Your task to perform on an android device: check out phone information Image 0: 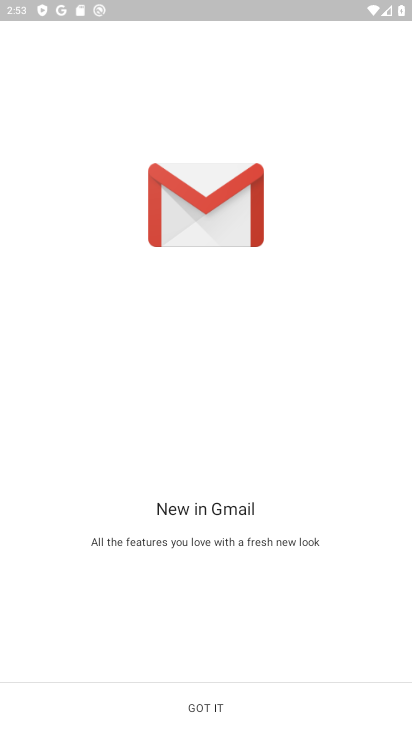
Step 0: press home button
Your task to perform on an android device: check out phone information Image 1: 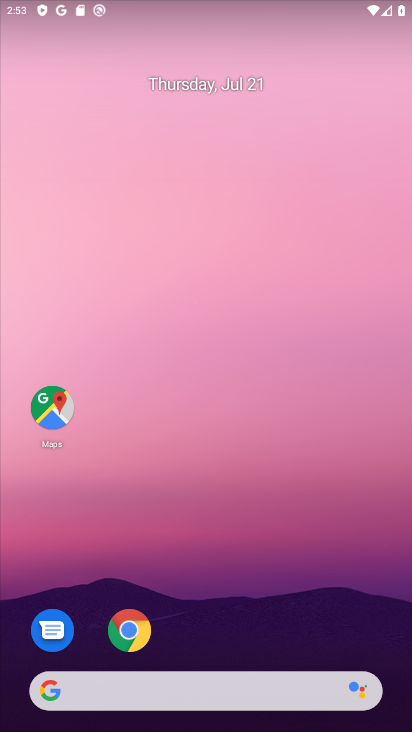
Step 1: drag from (289, 504) to (269, 25)
Your task to perform on an android device: check out phone information Image 2: 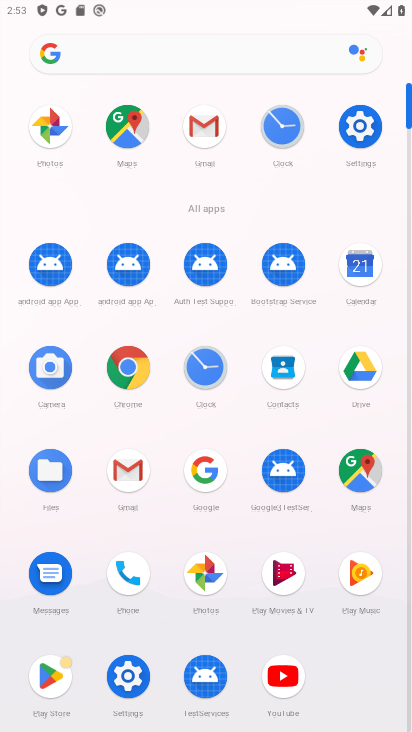
Step 2: click (361, 126)
Your task to perform on an android device: check out phone information Image 3: 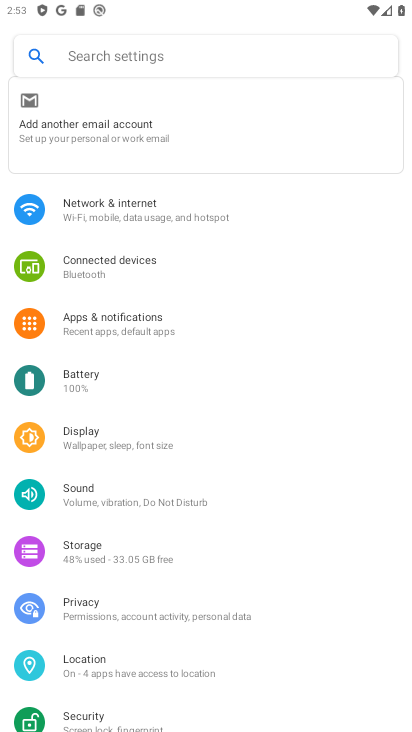
Step 3: drag from (209, 619) to (279, 98)
Your task to perform on an android device: check out phone information Image 4: 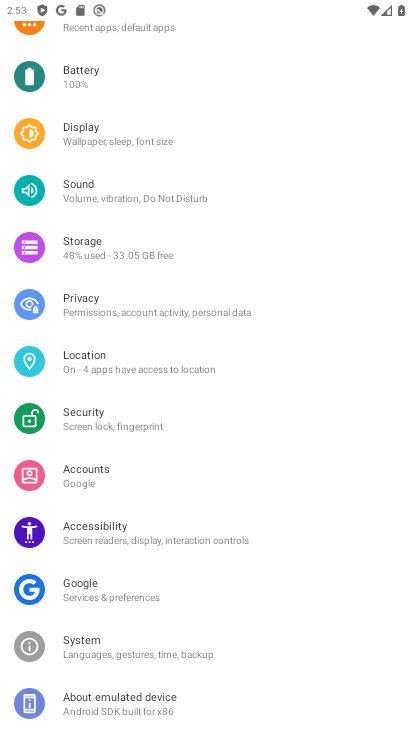
Step 4: click (144, 698)
Your task to perform on an android device: check out phone information Image 5: 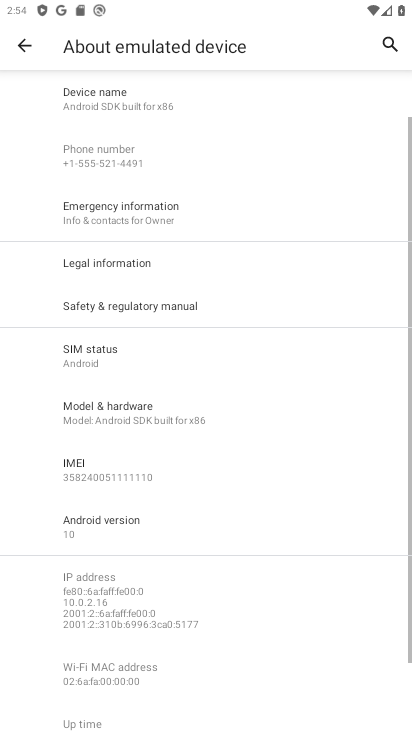
Step 5: task complete